Your task to perform on an android device: toggle pop-ups in chrome Image 0: 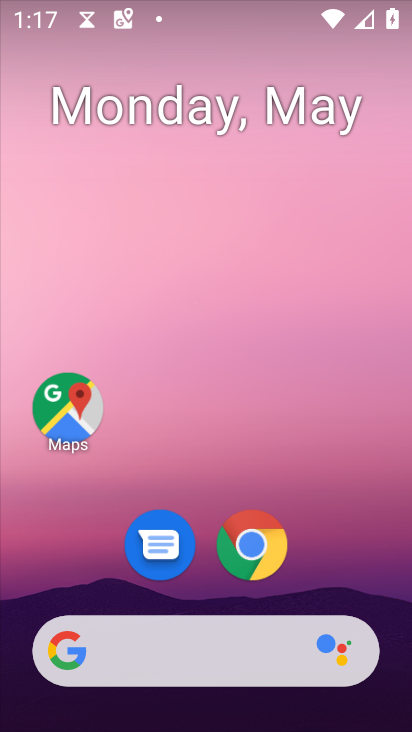
Step 0: click (241, 539)
Your task to perform on an android device: toggle pop-ups in chrome Image 1: 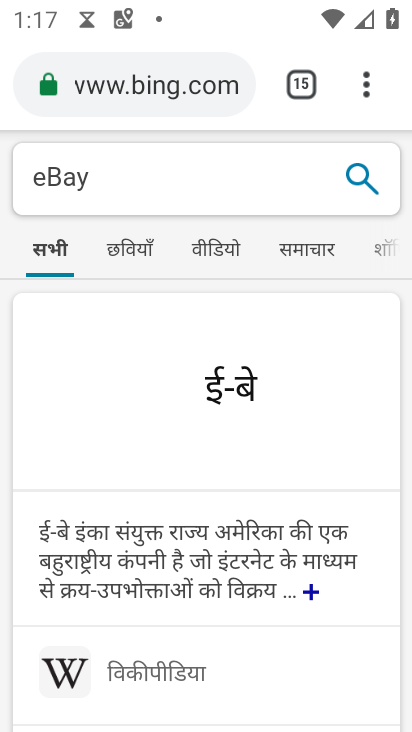
Step 1: click (374, 74)
Your task to perform on an android device: toggle pop-ups in chrome Image 2: 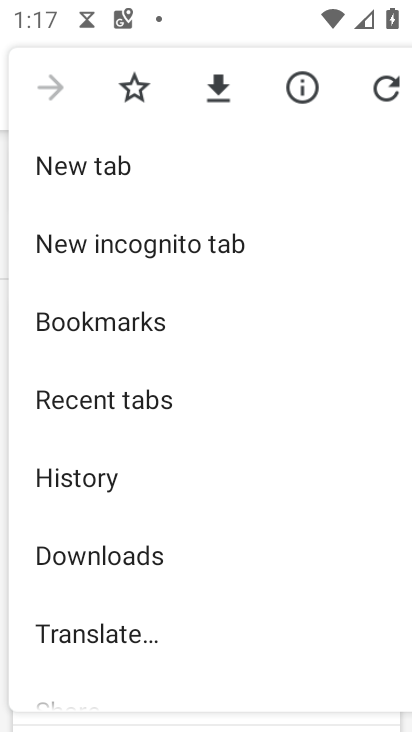
Step 2: drag from (264, 590) to (281, 177)
Your task to perform on an android device: toggle pop-ups in chrome Image 3: 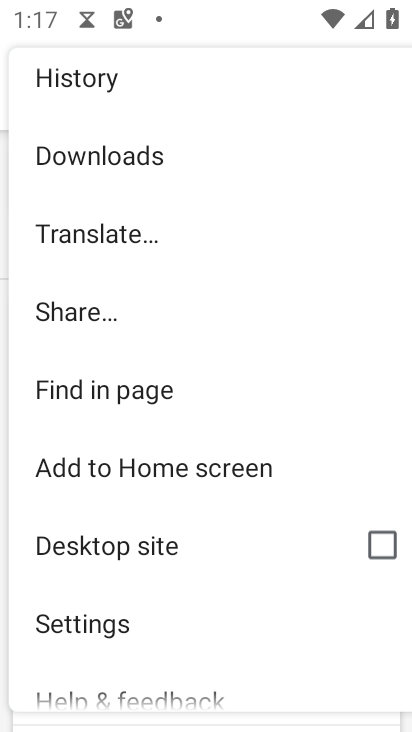
Step 3: click (153, 615)
Your task to perform on an android device: toggle pop-ups in chrome Image 4: 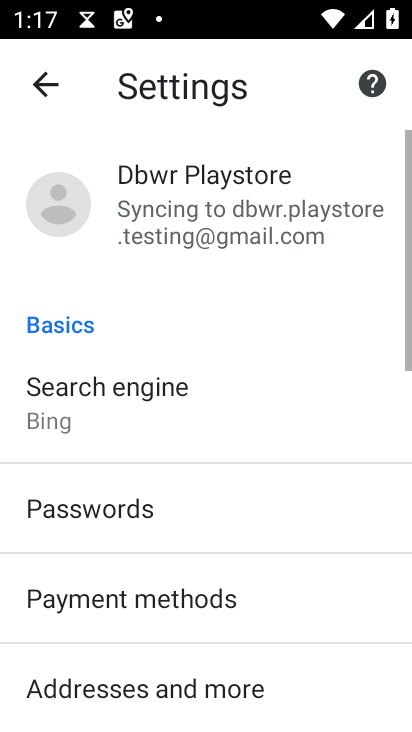
Step 4: drag from (153, 615) to (214, 202)
Your task to perform on an android device: toggle pop-ups in chrome Image 5: 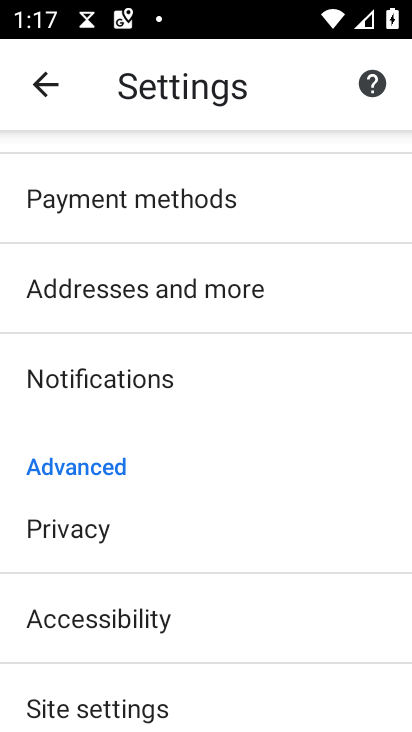
Step 5: drag from (205, 648) to (254, 334)
Your task to perform on an android device: toggle pop-ups in chrome Image 6: 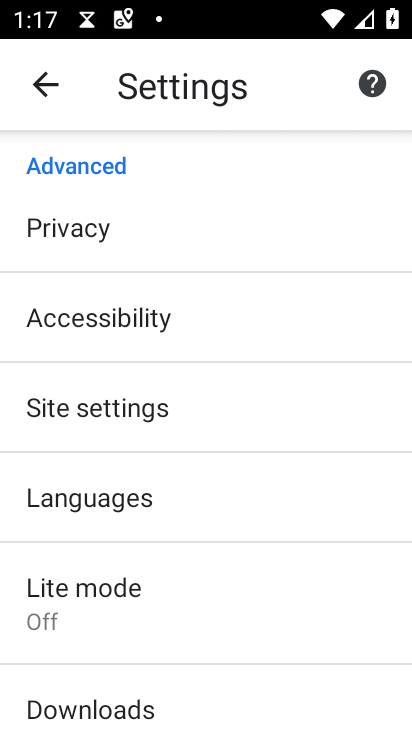
Step 6: click (167, 407)
Your task to perform on an android device: toggle pop-ups in chrome Image 7: 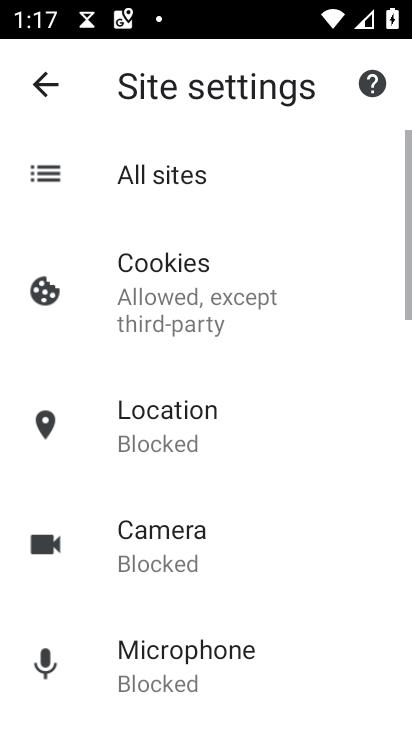
Step 7: drag from (239, 613) to (274, 250)
Your task to perform on an android device: toggle pop-ups in chrome Image 8: 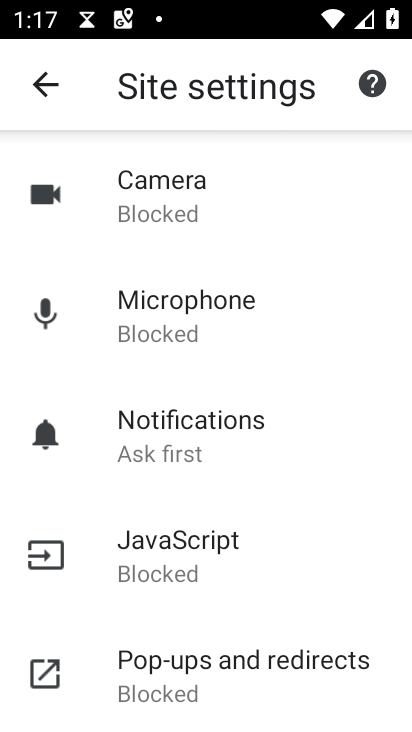
Step 8: click (204, 648)
Your task to perform on an android device: toggle pop-ups in chrome Image 9: 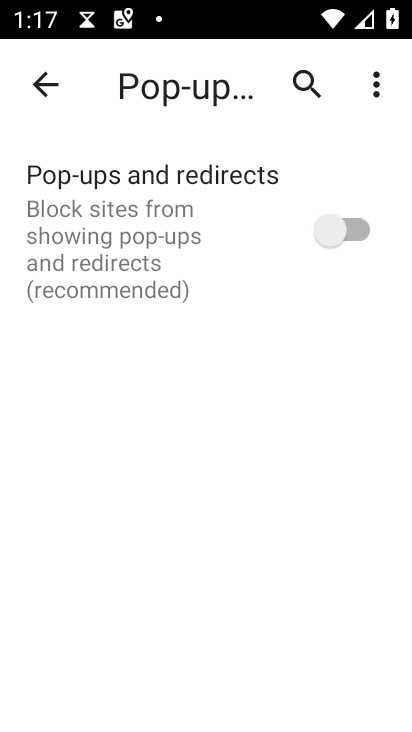
Step 9: click (343, 229)
Your task to perform on an android device: toggle pop-ups in chrome Image 10: 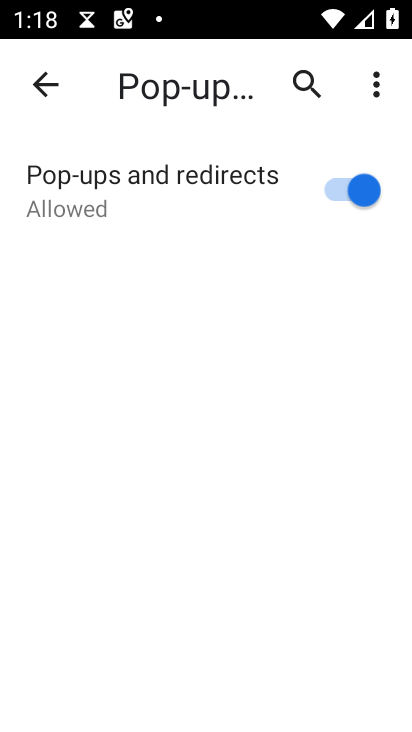
Step 10: task complete